Your task to perform on an android device: open the mobile data screen to see how much data has been used Image 0: 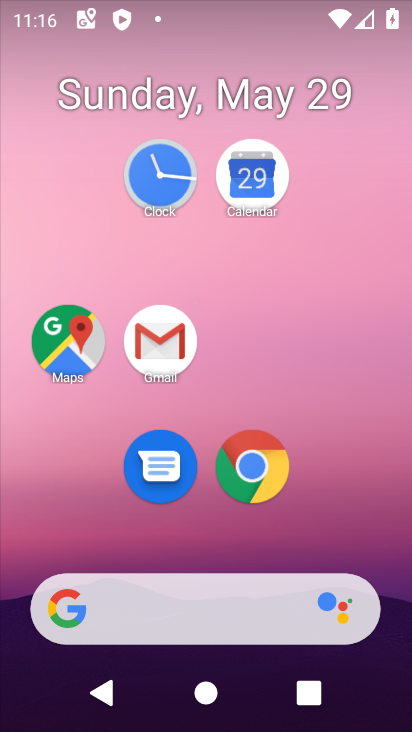
Step 0: drag from (300, 549) to (306, 79)
Your task to perform on an android device: open the mobile data screen to see how much data has been used Image 1: 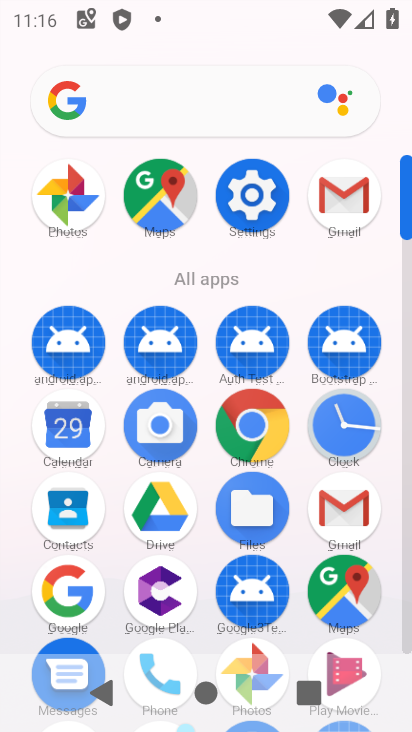
Step 1: drag from (256, 177) to (142, 190)
Your task to perform on an android device: open the mobile data screen to see how much data has been used Image 2: 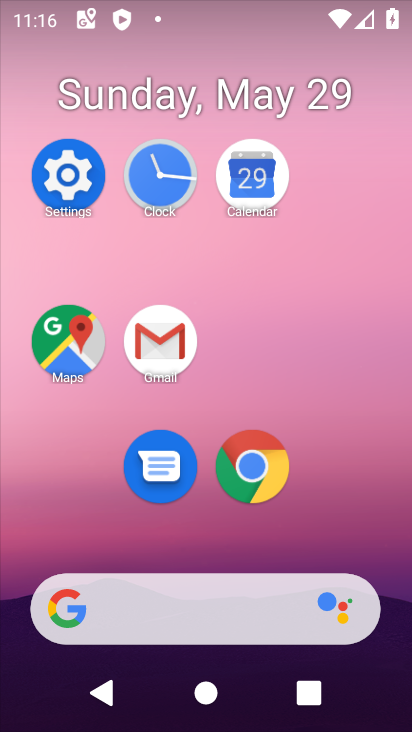
Step 2: click (17, 193)
Your task to perform on an android device: open the mobile data screen to see how much data has been used Image 3: 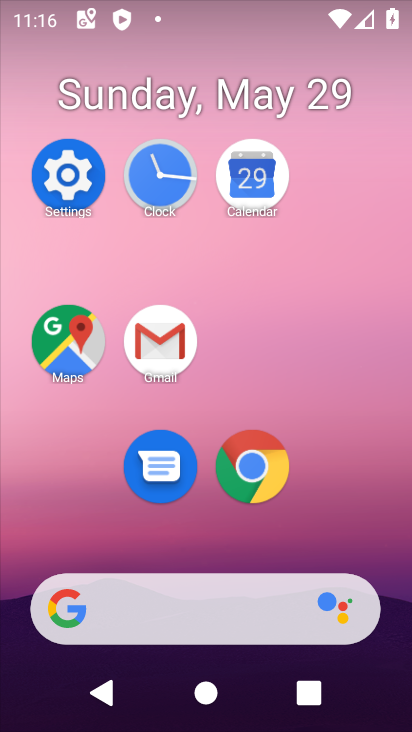
Step 3: click (71, 171)
Your task to perform on an android device: open the mobile data screen to see how much data has been used Image 4: 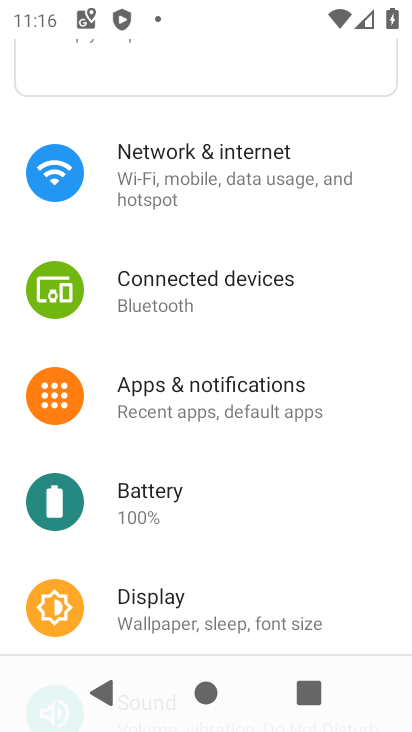
Step 4: click (191, 184)
Your task to perform on an android device: open the mobile data screen to see how much data has been used Image 5: 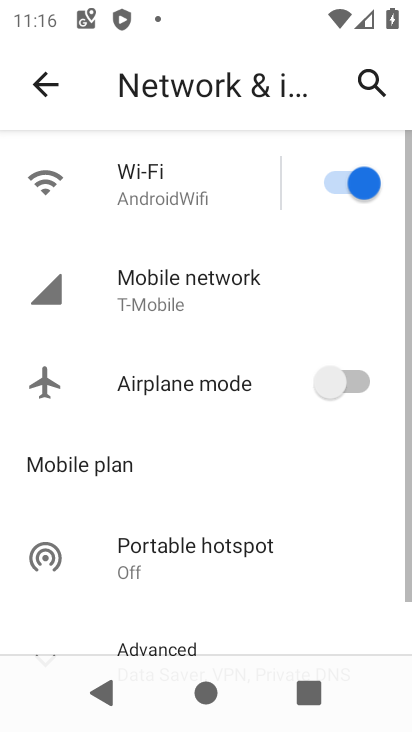
Step 5: click (229, 329)
Your task to perform on an android device: open the mobile data screen to see how much data has been used Image 6: 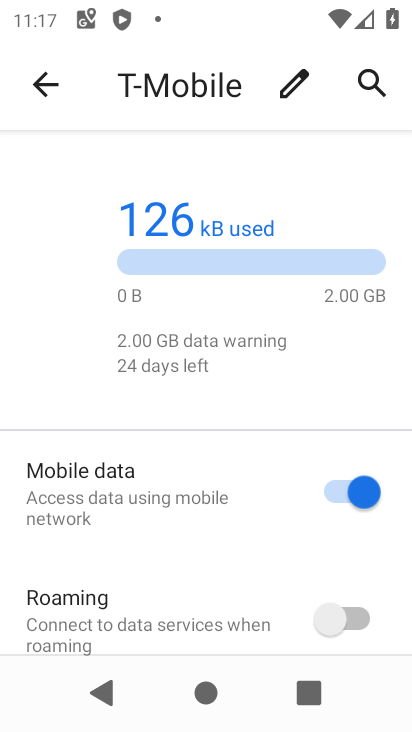
Step 6: task complete